Your task to perform on an android device: snooze an email in the gmail app Image 0: 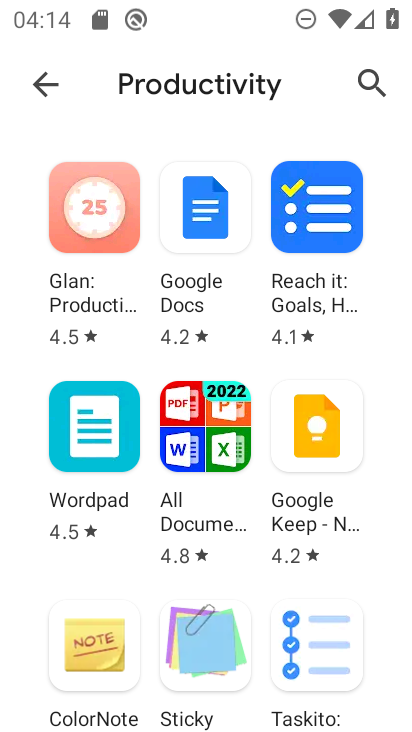
Step 0: press home button
Your task to perform on an android device: snooze an email in the gmail app Image 1: 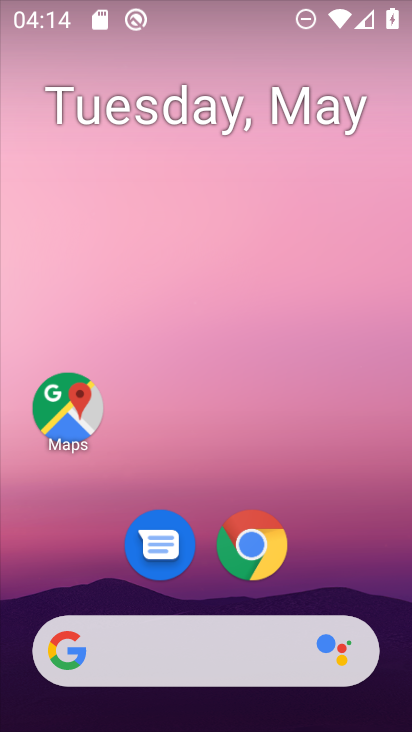
Step 1: drag from (383, 614) to (310, 79)
Your task to perform on an android device: snooze an email in the gmail app Image 2: 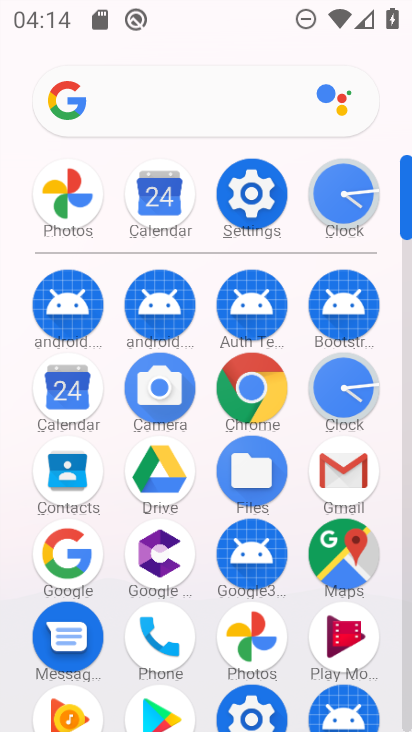
Step 2: click (338, 470)
Your task to perform on an android device: snooze an email in the gmail app Image 3: 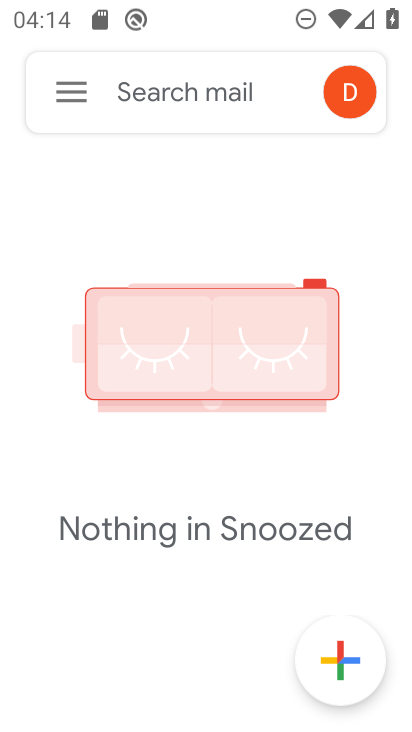
Step 3: click (64, 94)
Your task to perform on an android device: snooze an email in the gmail app Image 4: 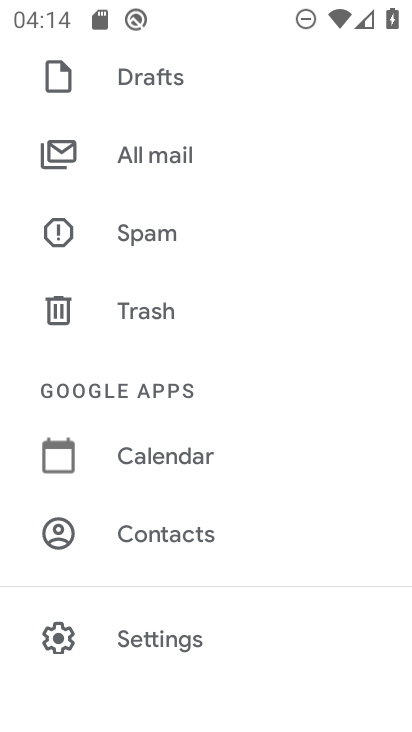
Step 4: click (140, 159)
Your task to perform on an android device: snooze an email in the gmail app Image 5: 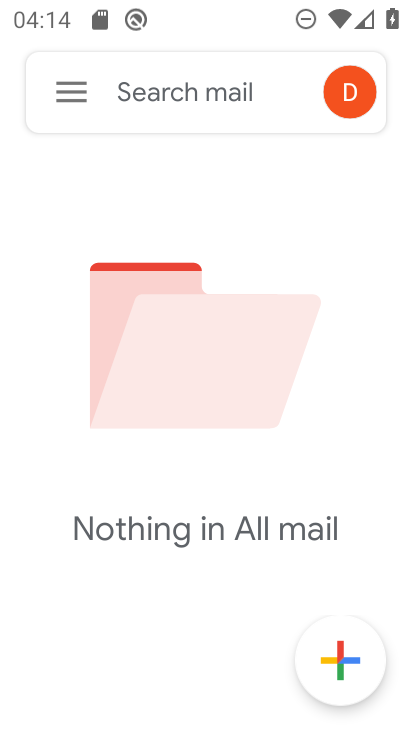
Step 5: task complete